Your task to perform on an android device: toggle improve location accuracy Image 0: 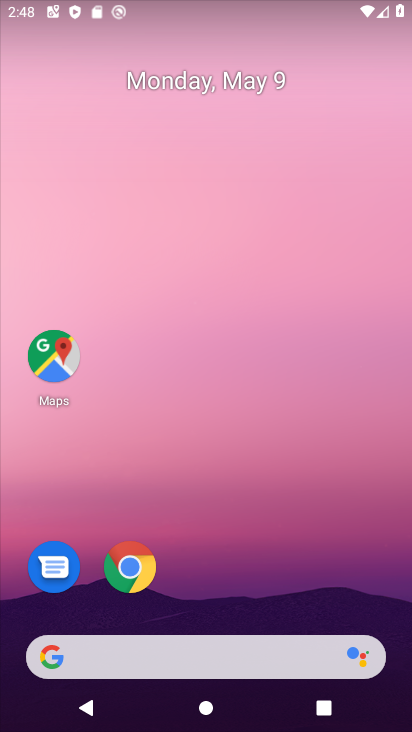
Step 0: drag from (268, 584) to (281, 84)
Your task to perform on an android device: toggle improve location accuracy Image 1: 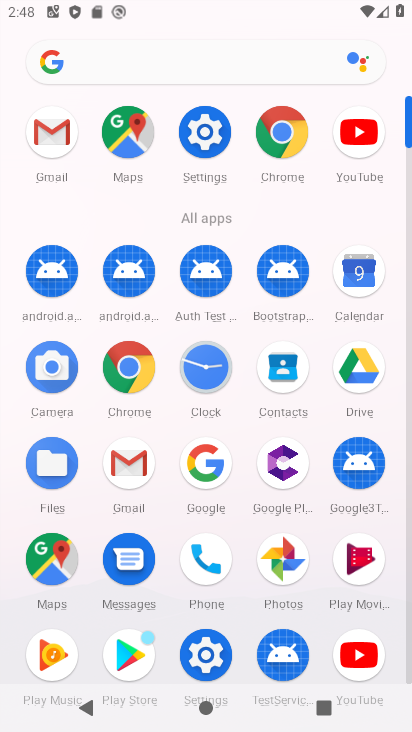
Step 1: click (202, 144)
Your task to perform on an android device: toggle improve location accuracy Image 2: 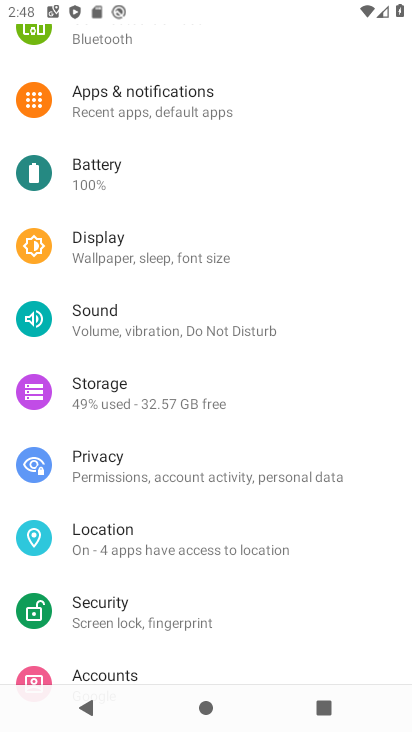
Step 2: click (191, 542)
Your task to perform on an android device: toggle improve location accuracy Image 3: 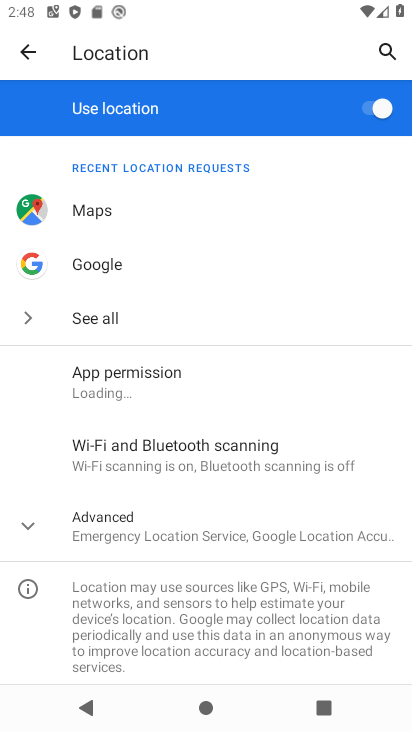
Step 3: click (192, 528)
Your task to perform on an android device: toggle improve location accuracy Image 4: 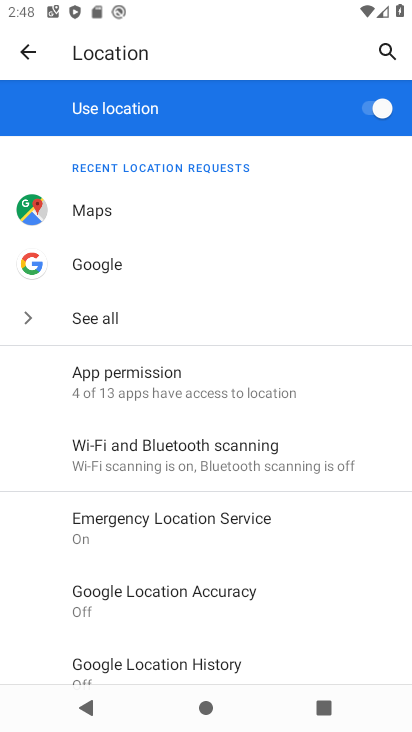
Step 4: click (170, 590)
Your task to perform on an android device: toggle improve location accuracy Image 5: 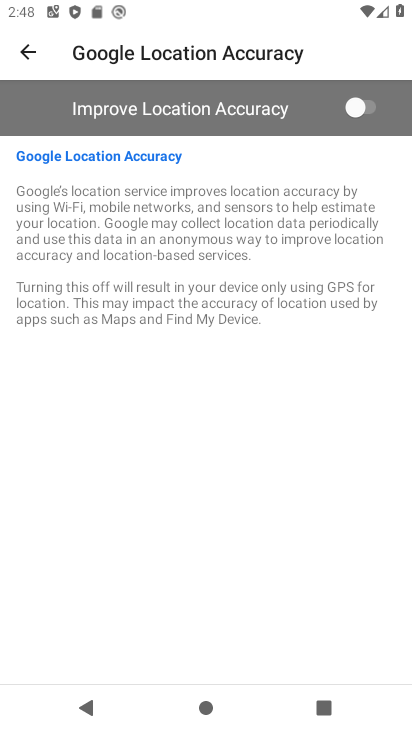
Step 5: click (376, 102)
Your task to perform on an android device: toggle improve location accuracy Image 6: 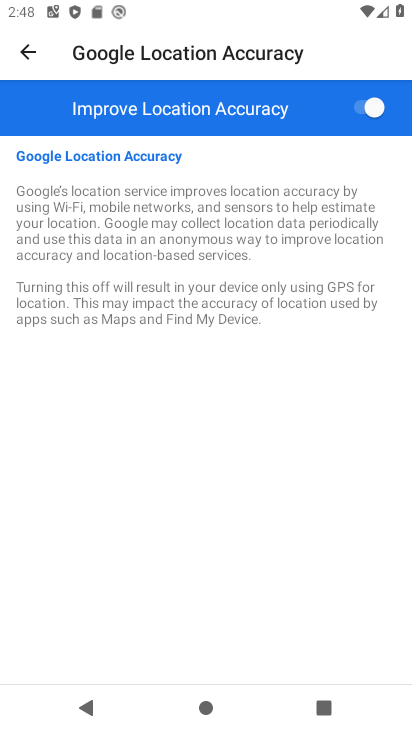
Step 6: task complete